Your task to perform on an android device: Open Maps and search for coffee Image 0: 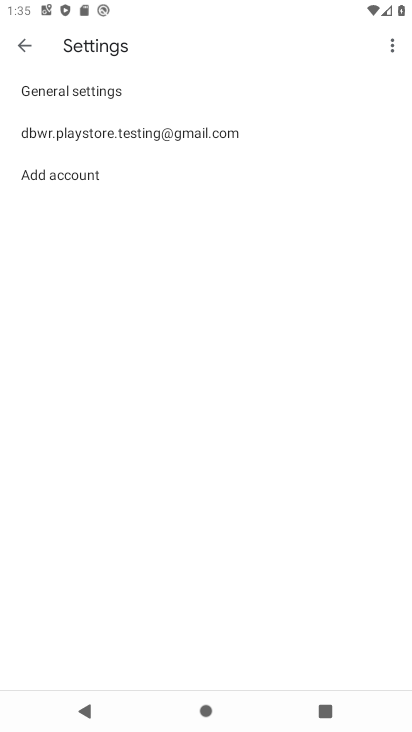
Step 0: press home button
Your task to perform on an android device: Open Maps and search for coffee Image 1: 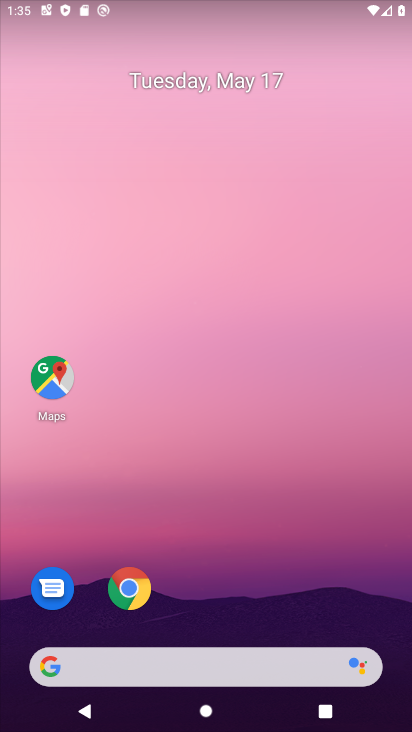
Step 1: click (54, 381)
Your task to perform on an android device: Open Maps and search for coffee Image 2: 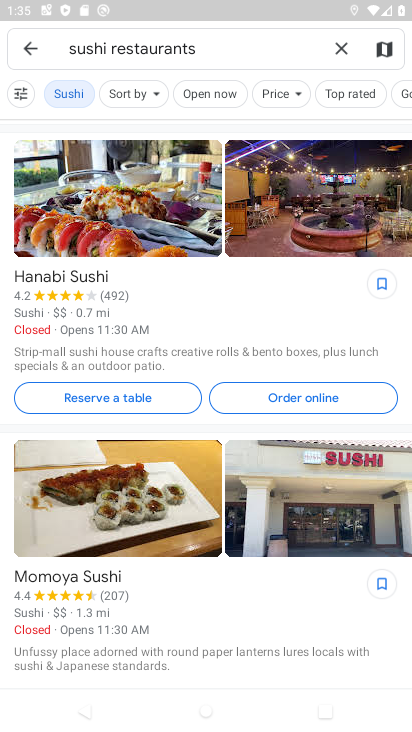
Step 2: click (337, 47)
Your task to perform on an android device: Open Maps and search for coffee Image 3: 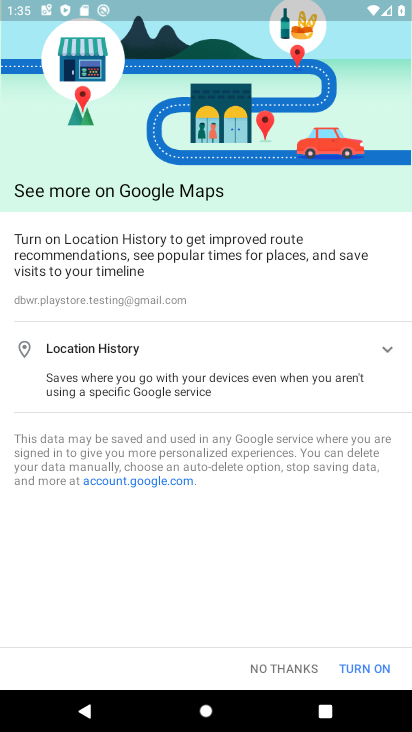
Step 3: press back button
Your task to perform on an android device: Open Maps and search for coffee Image 4: 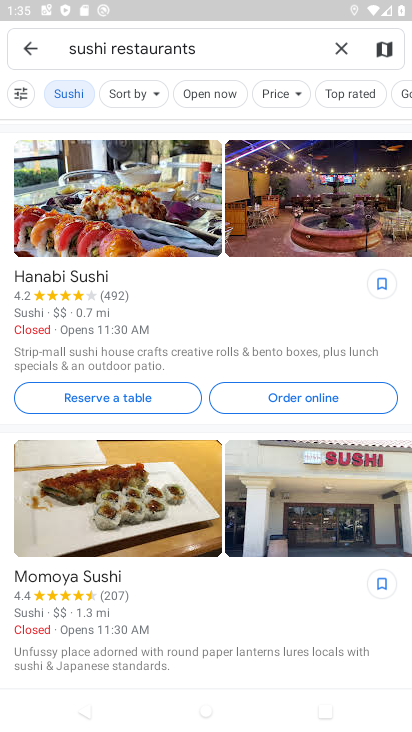
Step 4: click (342, 48)
Your task to perform on an android device: Open Maps and search for coffee Image 5: 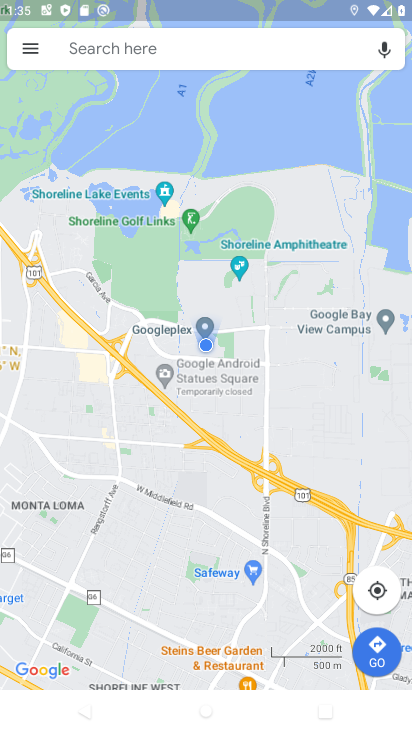
Step 5: click (159, 48)
Your task to perform on an android device: Open Maps and search for coffee Image 6: 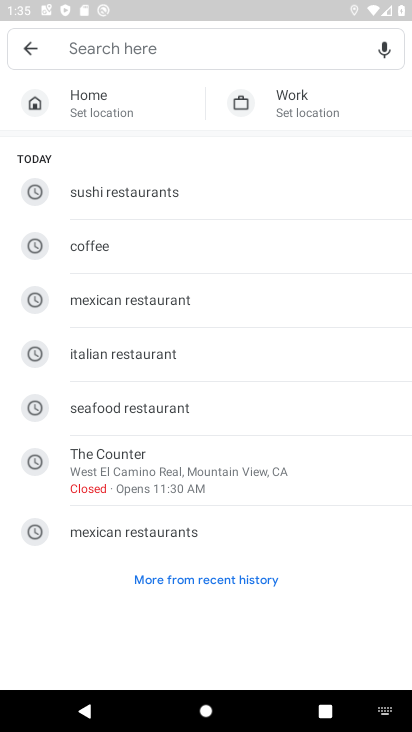
Step 6: click (90, 253)
Your task to perform on an android device: Open Maps and search for coffee Image 7: 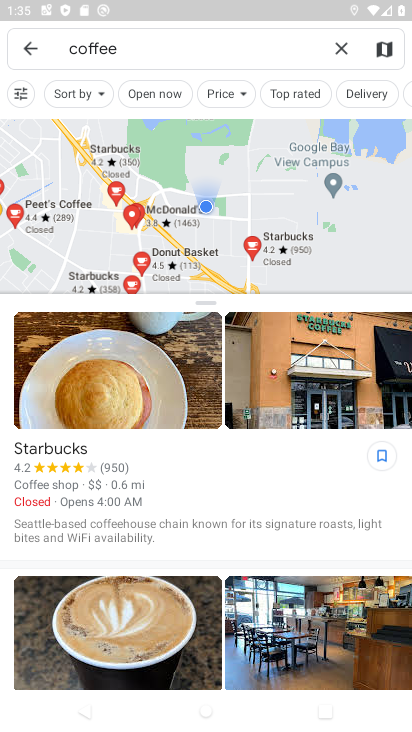
Step 7: task complete